Your task to perform on an android device: turn on sleep mode Image 0: 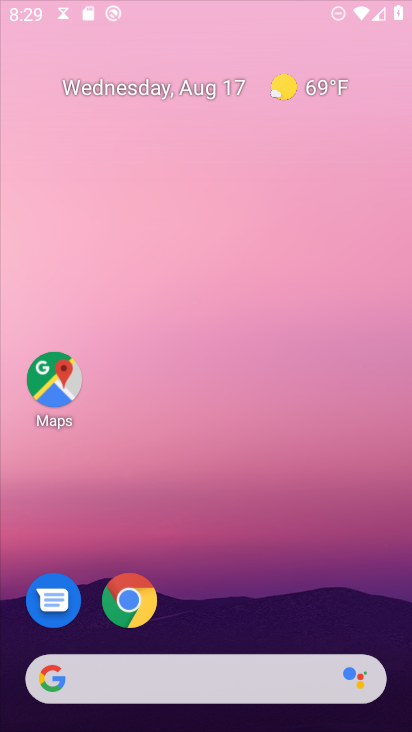
Step 0: press home button
Your task to perform on an android device: turn on sleep mode Image 1: 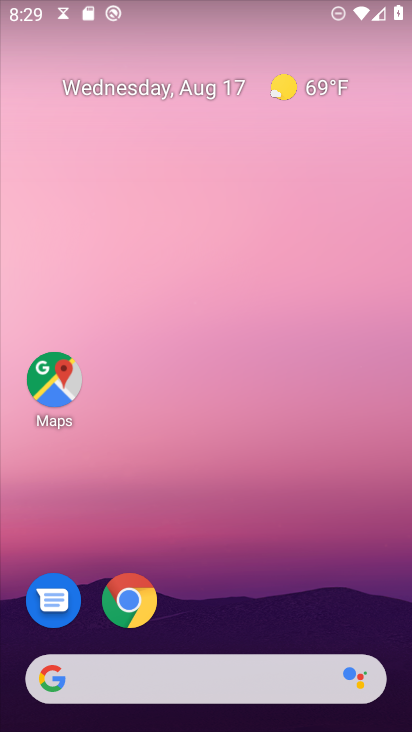
Step 1: drag from (241, 602) to (229, 63)
Your task to perform on an android device: turn on sleep mode Image 2: 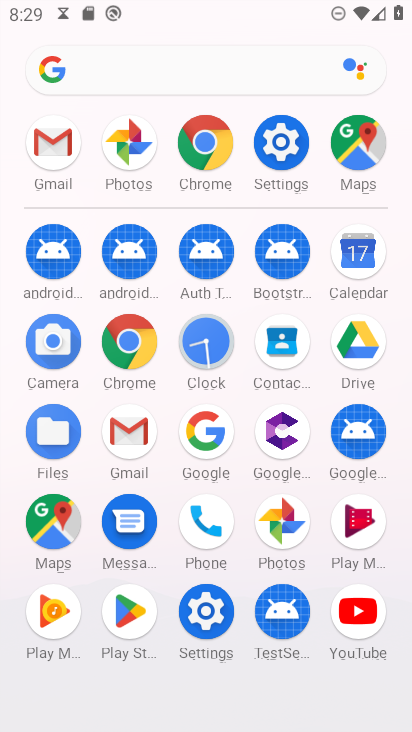
Step 2: click (283, 149)
Your task to perform on an android device: turn on sleep mode Image 3: 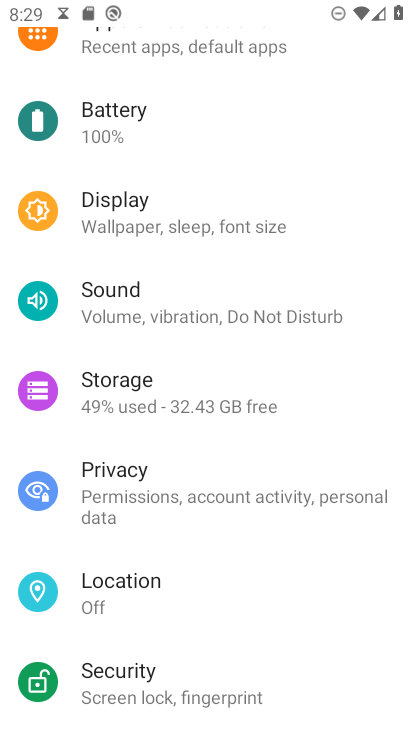
Step 3: click (105, 232)
Your task to perform on an android device: turn on sleep mode Image 4: 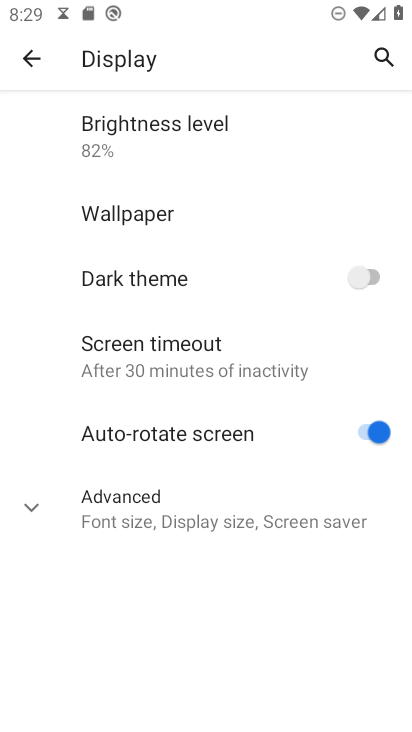
Step 4: click (26, 508)
Your task to perform on an android device: turn on sleep mode Image 5: 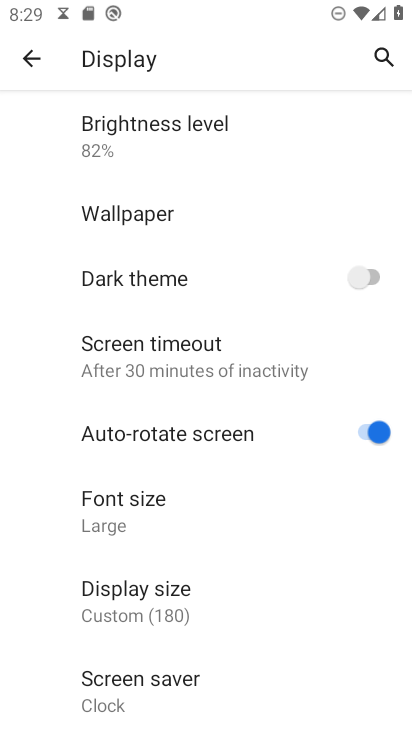
Step 5: task complete